Your task to perform on an android device: toggle pop-ups in chrome Image 0: 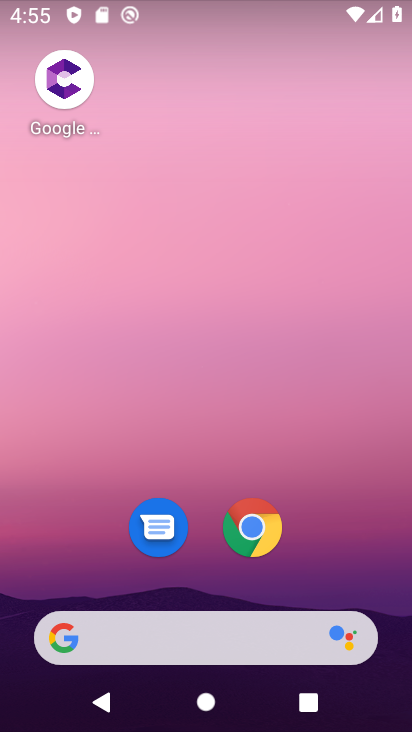
Step 0: click (246, 529)
Your task to perform on an android device: toggle pop-ups in chrome Image 1: 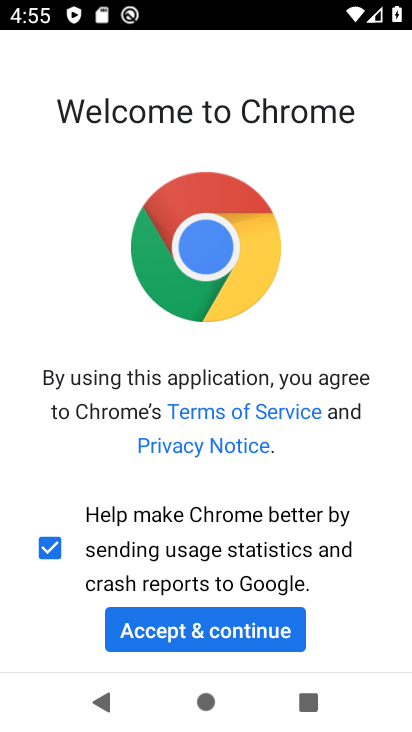
Step 1: click (247, 639)
Your task to perform on an android device: toggle pop-ups in chrome Image 2: 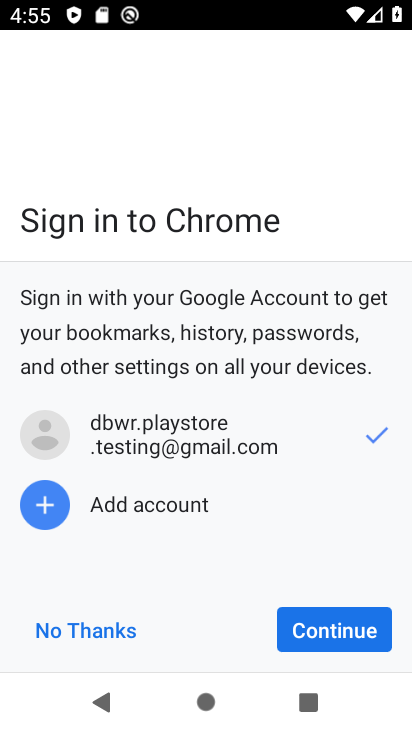
Step 2: click (312, 633)
Your task to perform on an android device: toggle pop-ups in chrome Image 3: 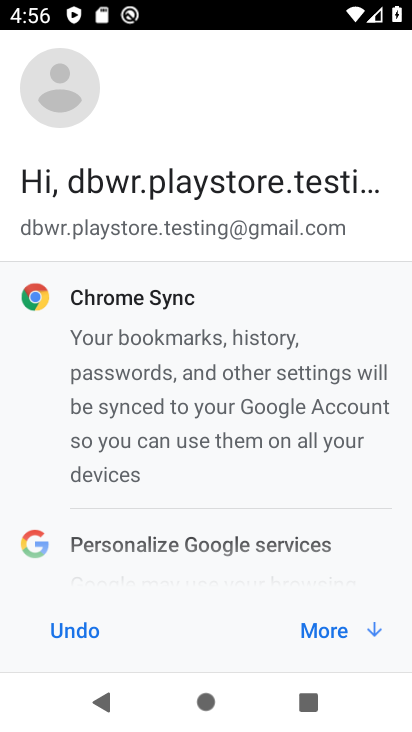
Step 3: click (320, 623)
Your task to perform on an android device: toggle pop-ups in chrome Image 4: 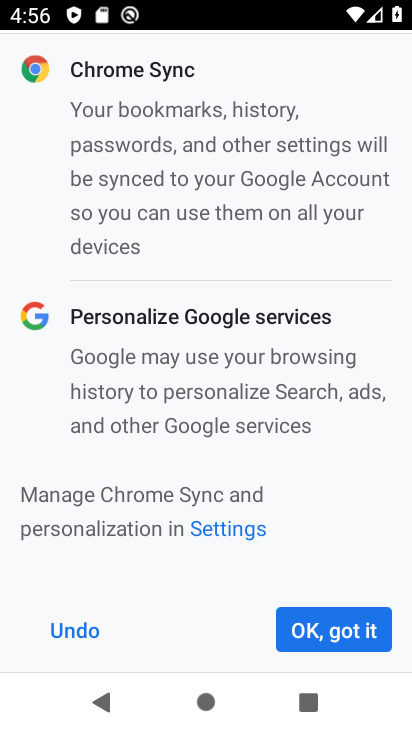
Step 4: click (339, 614)
Your task to perform on an android device: toggle pop-ups in chrome Image 5: 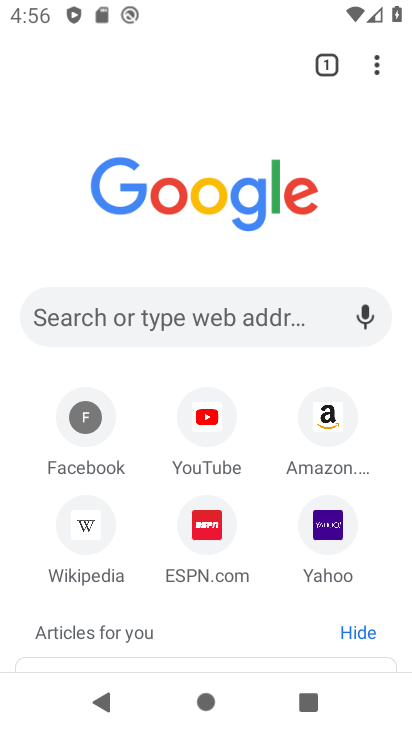
Step 5: click (375, 61)
Your task to perform on an android device: toggle pop-ups in chrome Image 6: 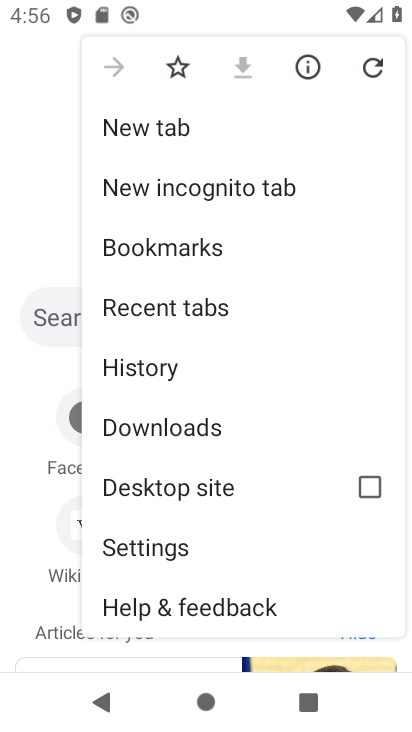
Step 6: drag from (203, 201) to (211, 138)
Your task to perform on an android device: toggle pop-ups in chrome Image 7: 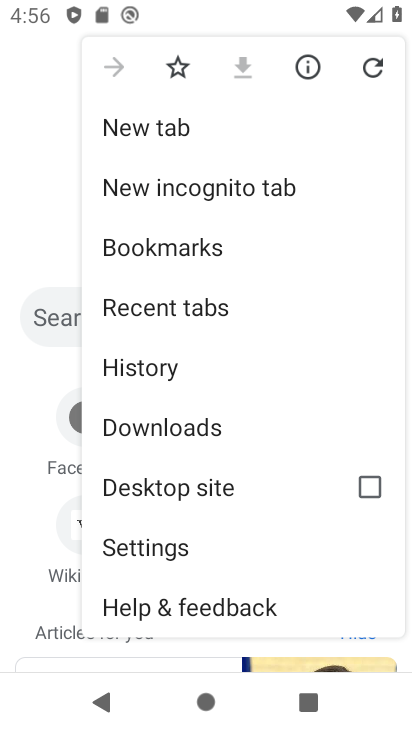
Step 7: click (159, 542)
Your task to perform on an android device: toggle pop-ups in chrome Image 8: 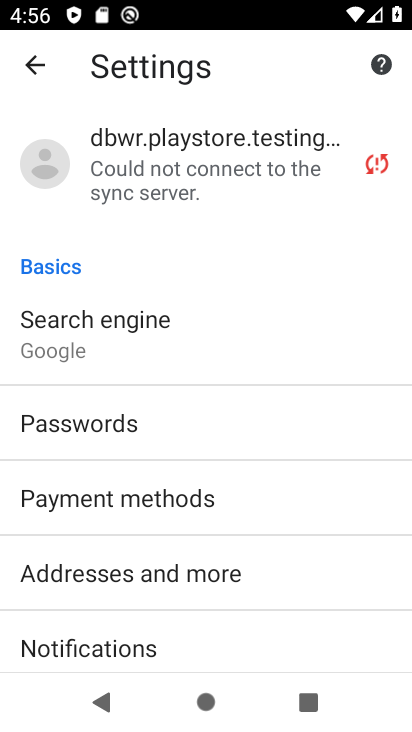
Step 8: drag from (228, 360) to (230, 230)
Your task to perform on an android device: toggle pop-ups in chrome Image 9: 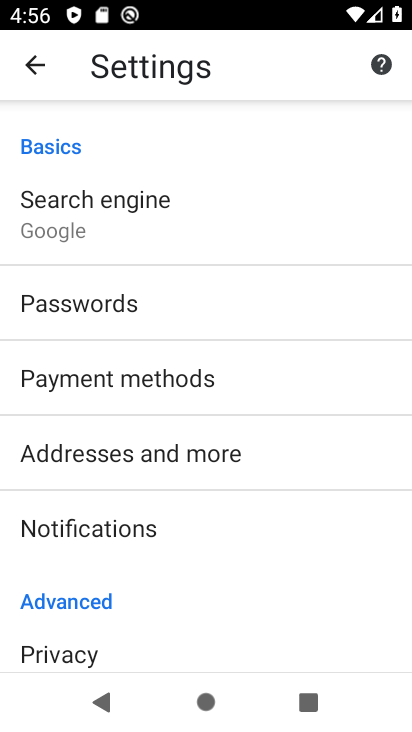
Step 9: drag from (149, 590) to (167, 282)
Your task to perform on an android device: toggle pop-ups in chrome Image 10: 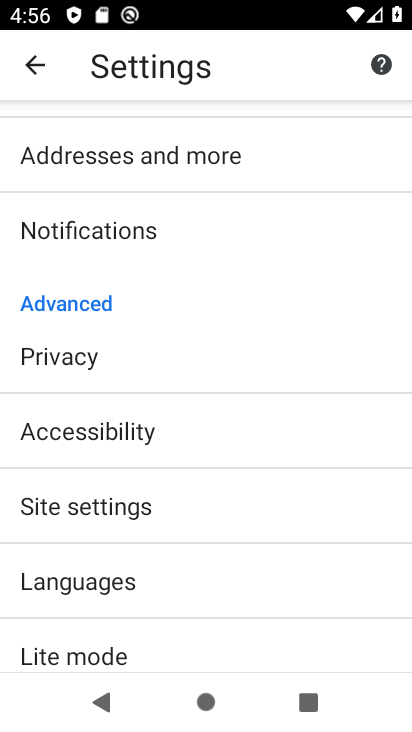
Step 10: click (60, 508)
Your task to perform on an android device: toggle pop-ups in chrome Image 11: 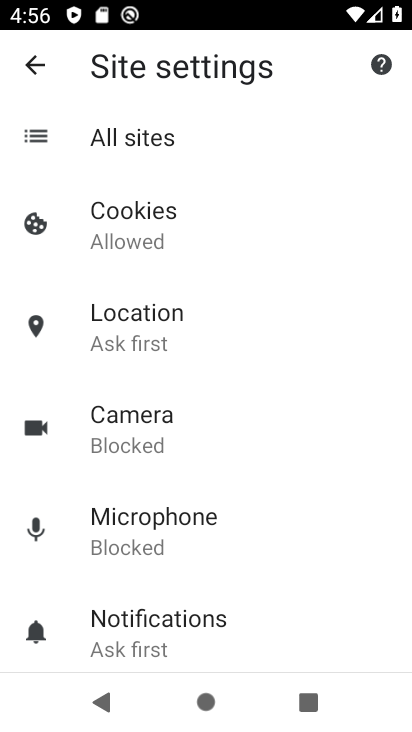
Step 11: drag from (179, 525) to (179, 334)
Your task to perform on an android device: toggle pop-ups in chrome Image 12: 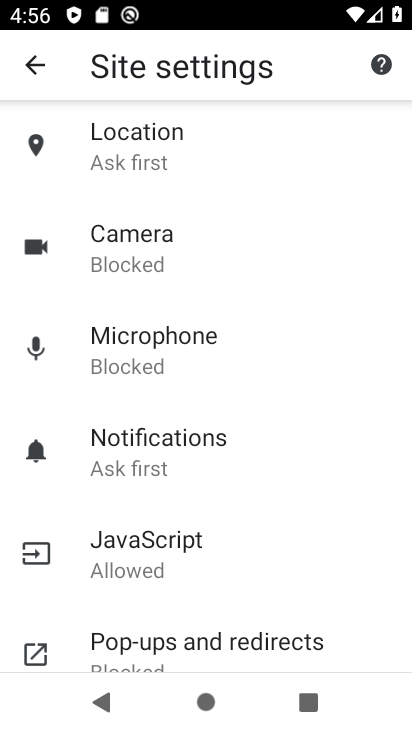
Step 12: click (157, 645)
Your task to perform on an android device: toggle pop-ups in chrome Image 13: 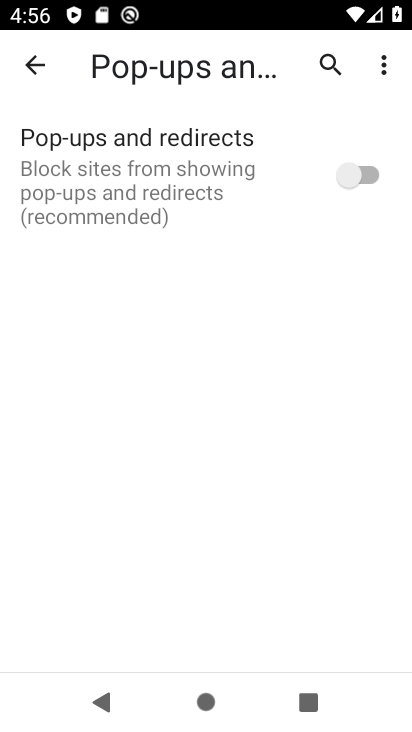
Step 13: click (367, 172)
Your task to perform on an android device: toggle pop-ups in chrome Image 14: 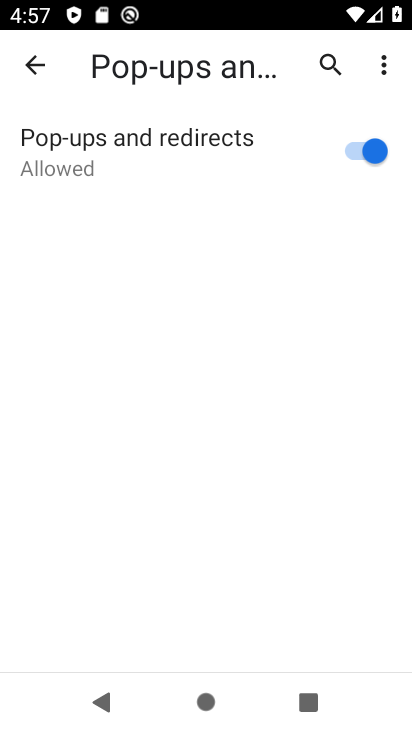
Step 14: task complete